Your task to perform on an android device: change the clock display to analog Image 0: 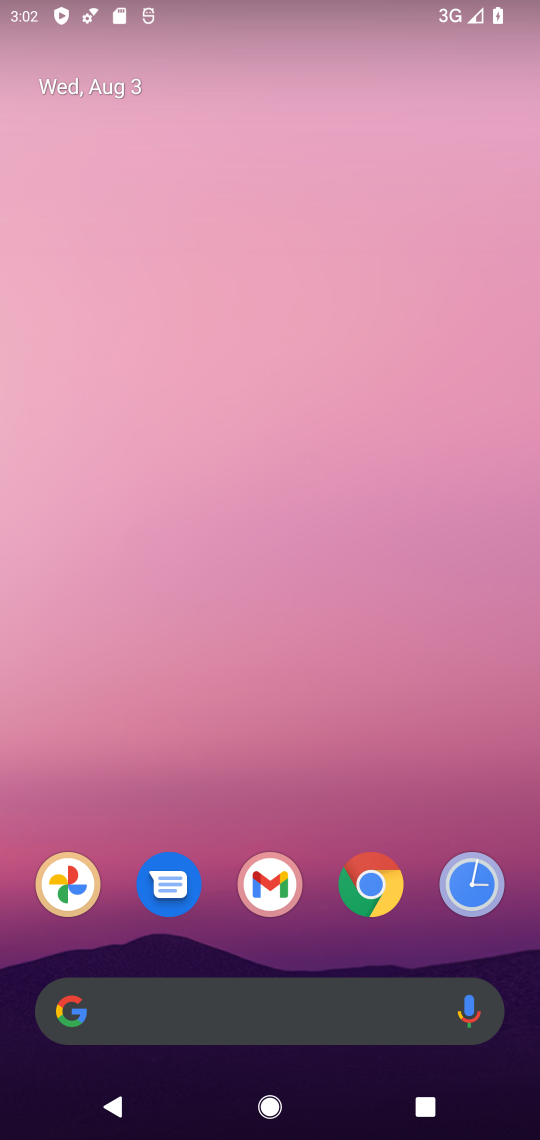
Step 0: drag from (301, 955) to (308, 151)
Your task to perform on an android device: change the clock display to analog Image 1: 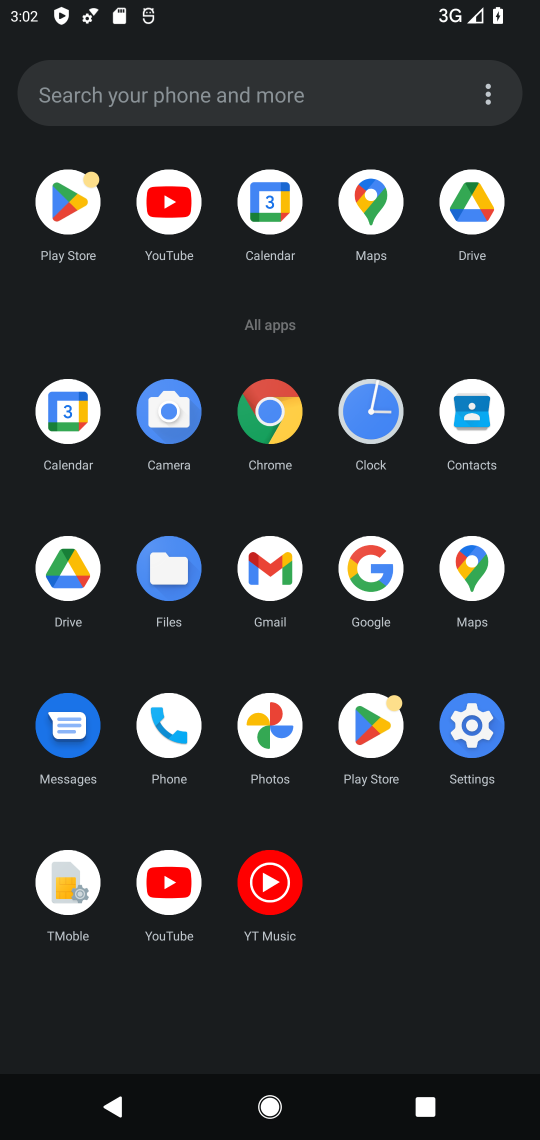
Step 1: click (490, 726)
Your task to perform on an android device: change the clock display to analog Image 2: 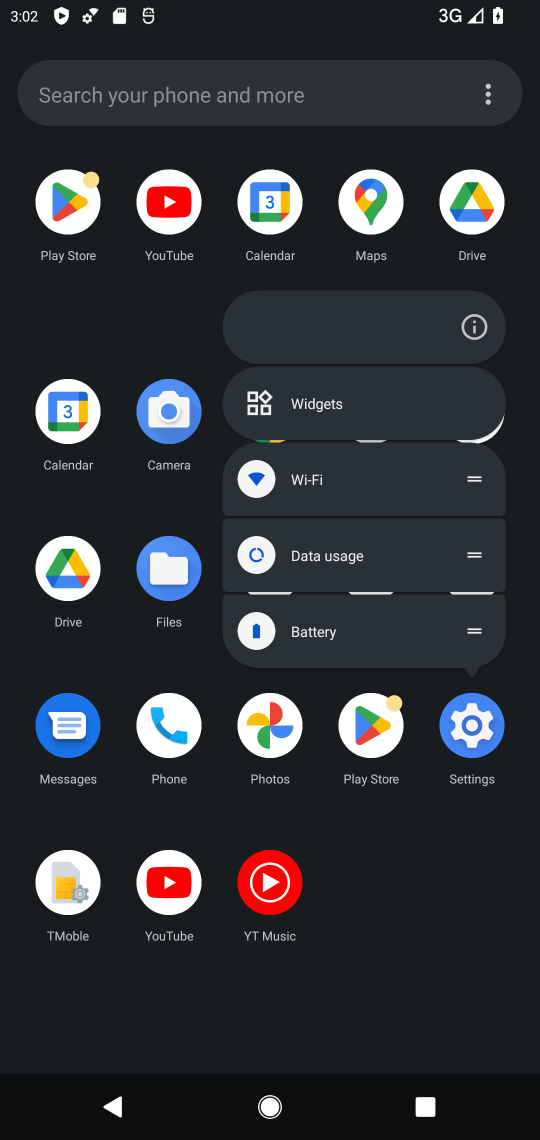
Step 2: click (490, 726)
Your task to perform on an android device: change the clock display to analog Image 3: 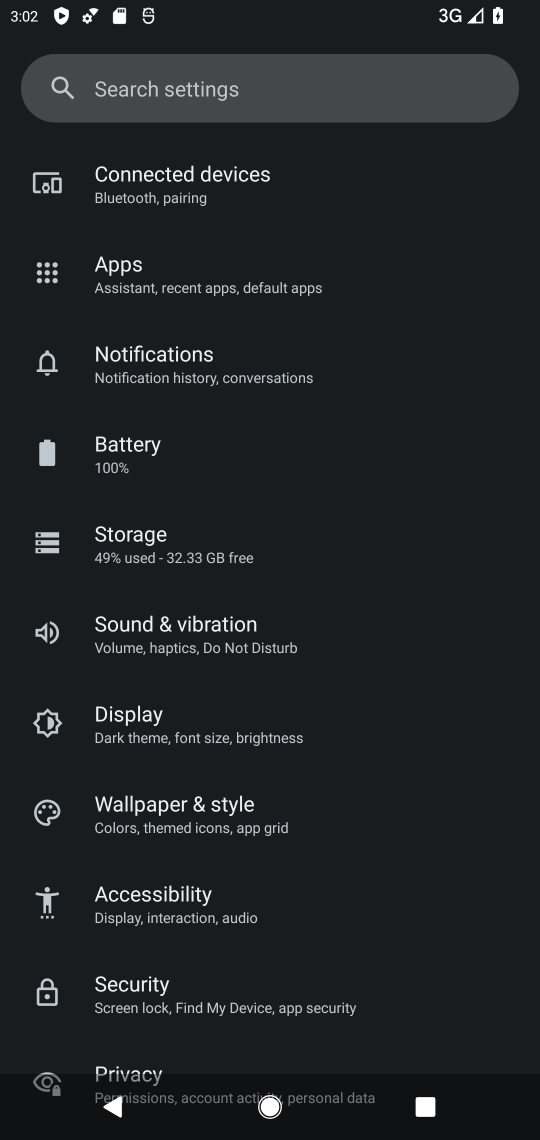
Step 3: press home button
Your task to perform on an android device: change the clock display to analog Image 4: 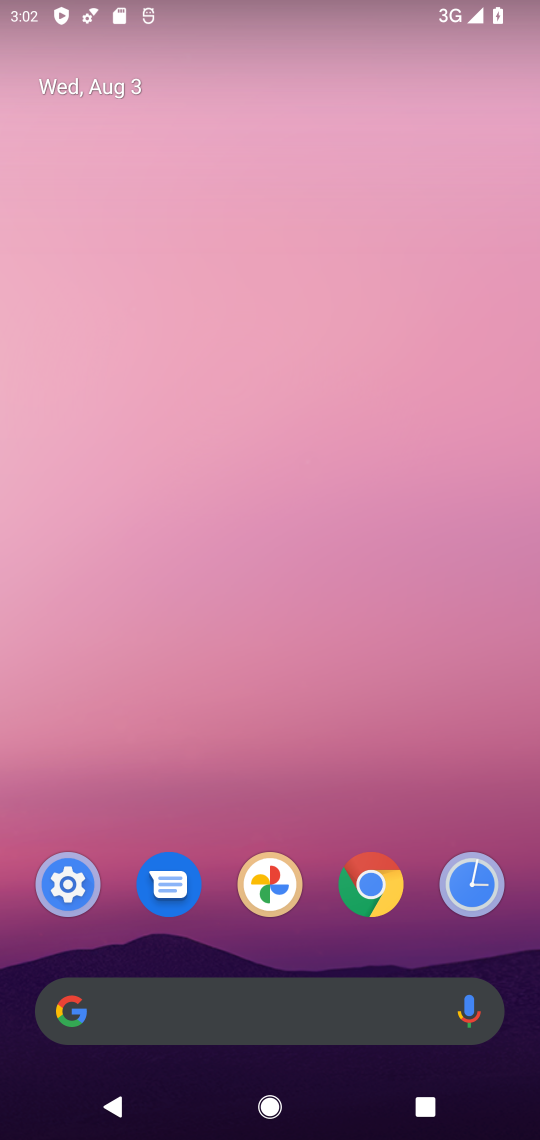
Step 4: click (478, 880)
Your task to perform on an android device: change the clock display to analog Image 5: 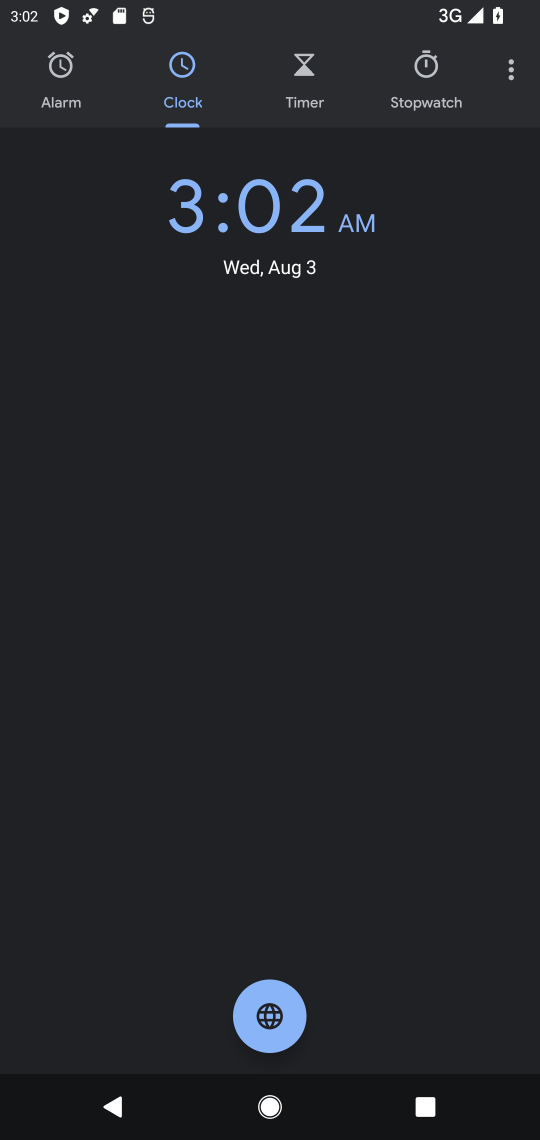
Step 5: click (515, 73)
Your task to perform on an android device: change the clock display to analog Image 6: 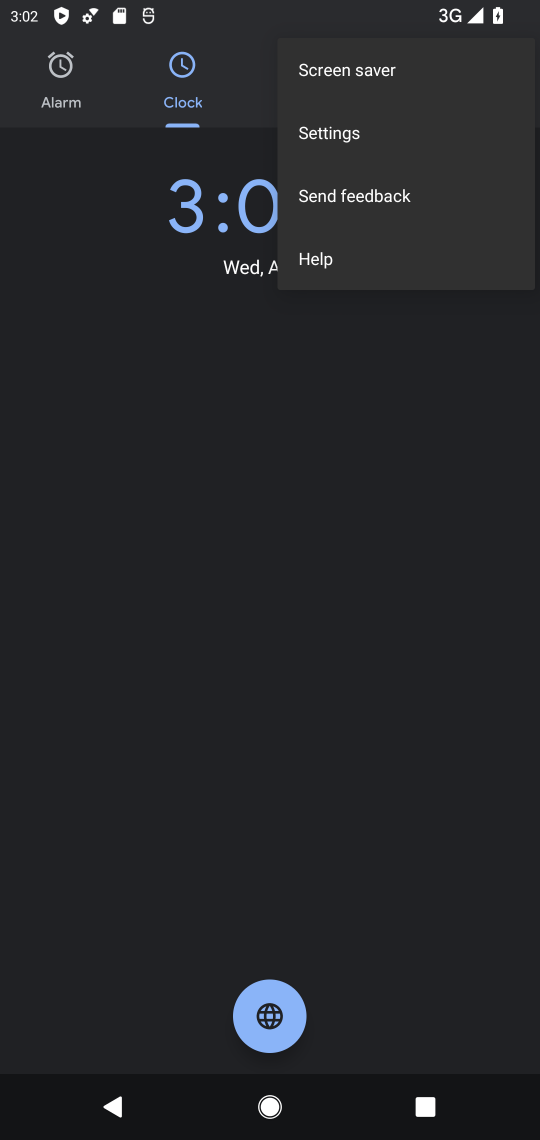
Step 6: click (426, 147)
Your task to perform on an android device: change the clock display to analog Image 7: 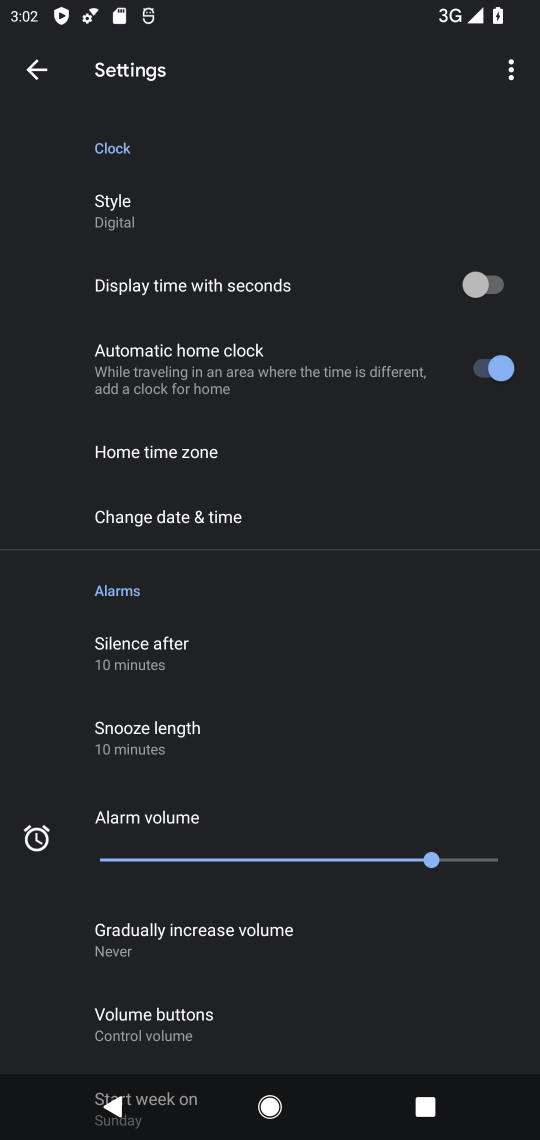
Step 7: task complete